Your task to perform on an android device: turn on translation in the chrome app Image 0: 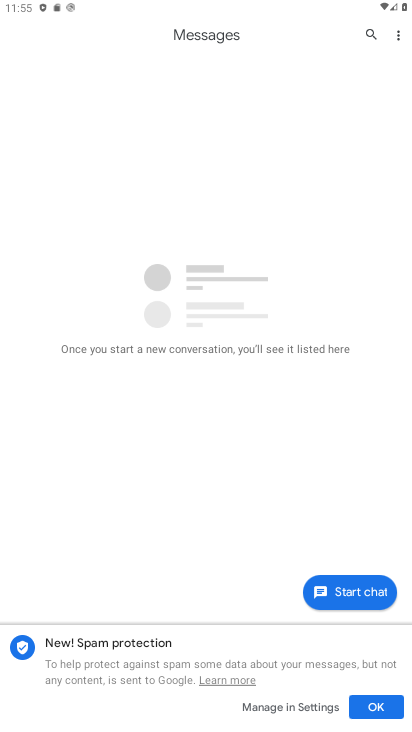
Step 0: press home button
Your task to perform on an android device: turn on translation in the chrome app Image 1: 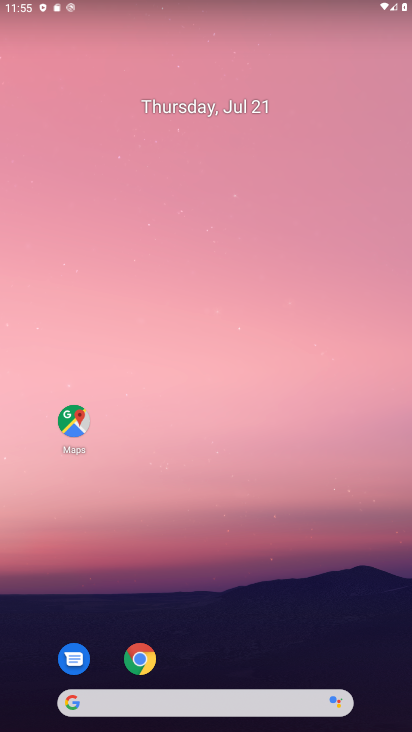
Step 1: click (154, 665)
Your task to perform on an android device: turn on translation in the chrome app Image 2: 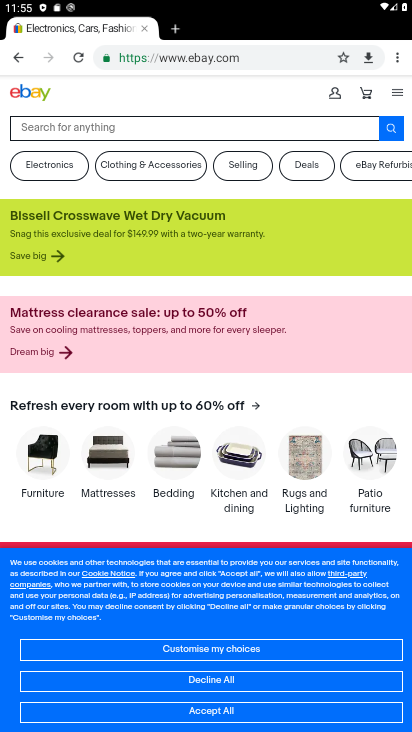
Step 2: click (400, 61)
Your task to perform on an android device: turn on translation in the chrome app Image 3: 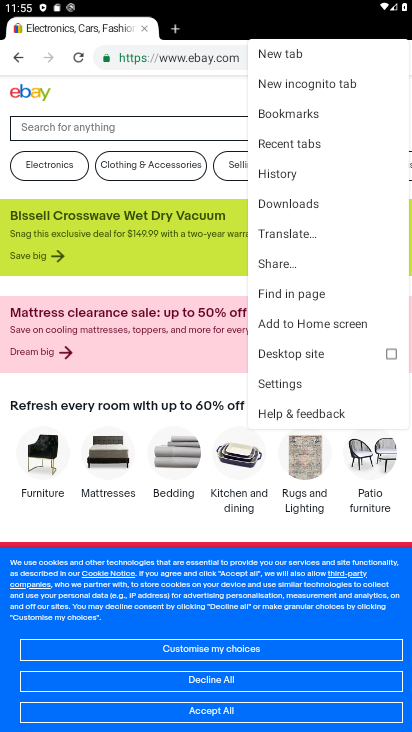
Step 3: click (304, 374)
Your task to perform on an android device: turn on translation in the chrome app Image 4: 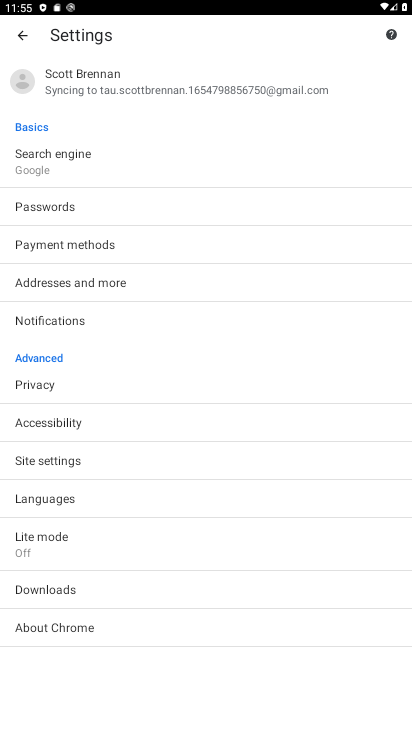
Step 4: task complete